Your task to perform on an android device: Search for "razer blade" on newegg.com, select the first entry, add it to the cart, then select checkout. Image 0: 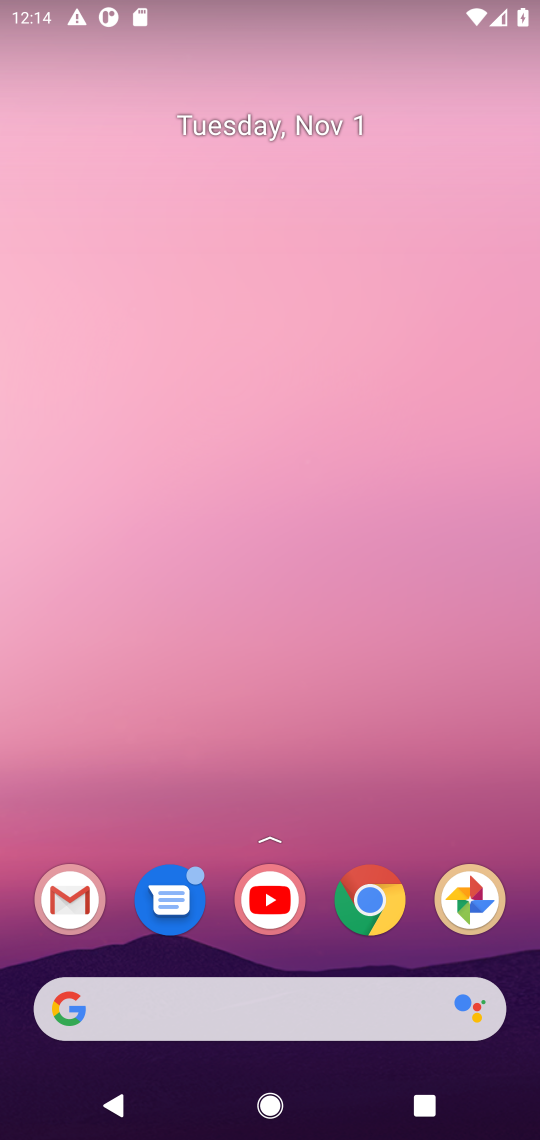
Step 0: click (373, 908)
Your task to perform on an android device: Search for "razer blade" on newegg.com, select the first entry, add it to the cart, then select checkout. Image 1: 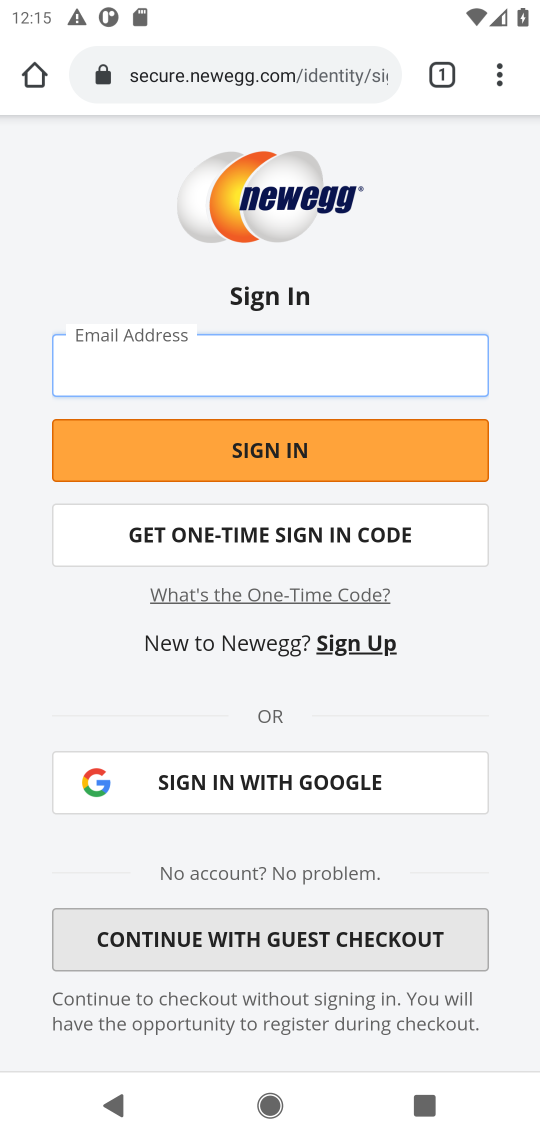
Step 1: click (276, 69)
Your task to perform on an android device: Search for "razer blade" on newegg.com, select the first entry, add it to the cart, then select checkout. Image 2: 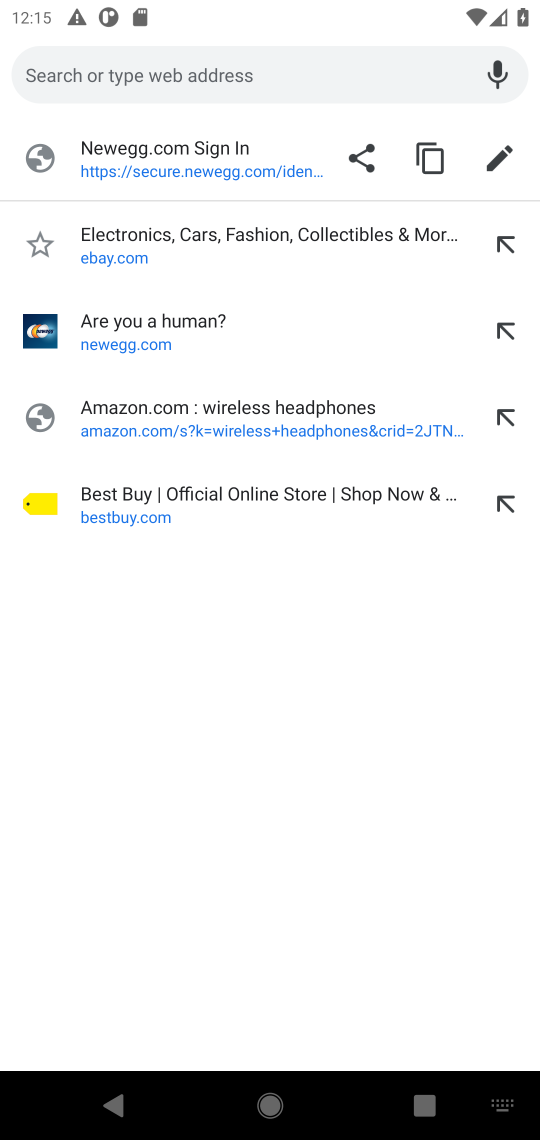
Step 2: click (165, 152)
Your task to perform on an android device: Search for "razer blade" on newegg.com, select the first entry, add it to the cart, then select checkout. Image 3: 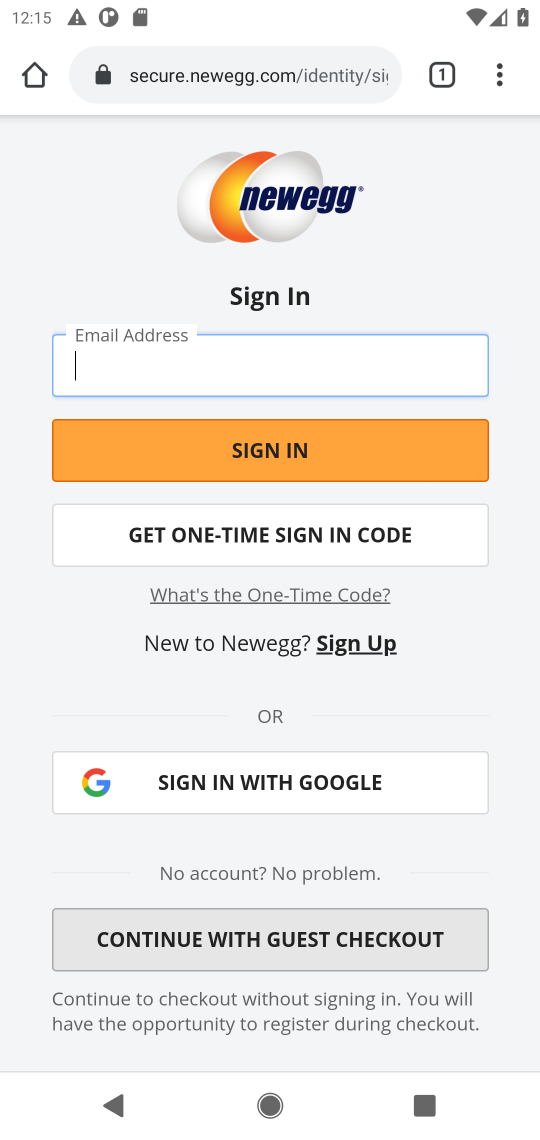
Step 3: click (156, 72)
Your task to perform on an android device: Search for "razer blade" on newegg.com, select the first entry, add it to the cart, then select checkout. Image 4: 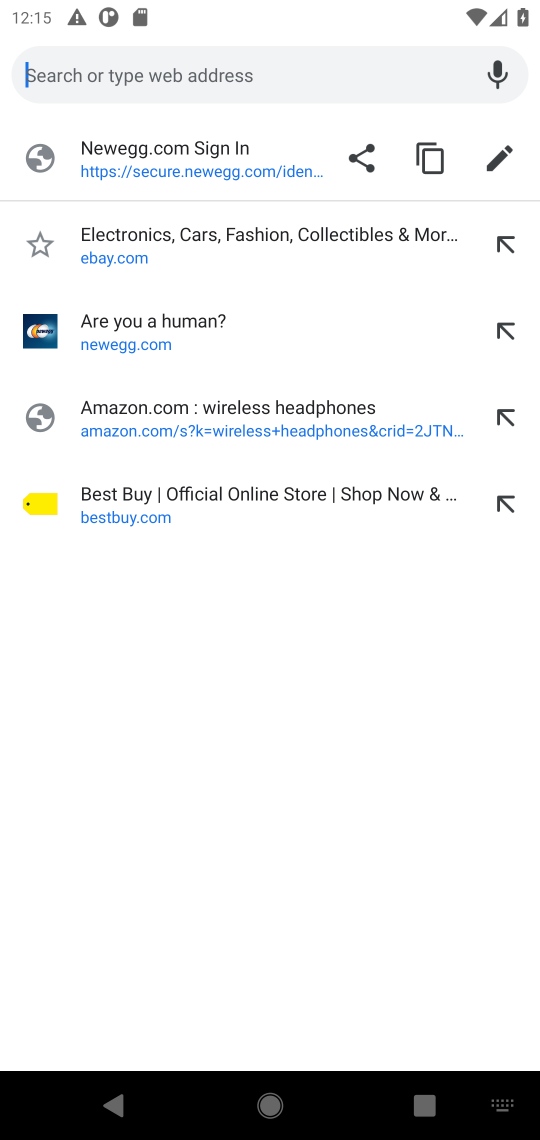
Step 4: type "newegg.com"
Your task to perform on an android device: Search for "razer blade" on newegg.com, select the first entry, add it to the cart, then select checkout. Image 5: 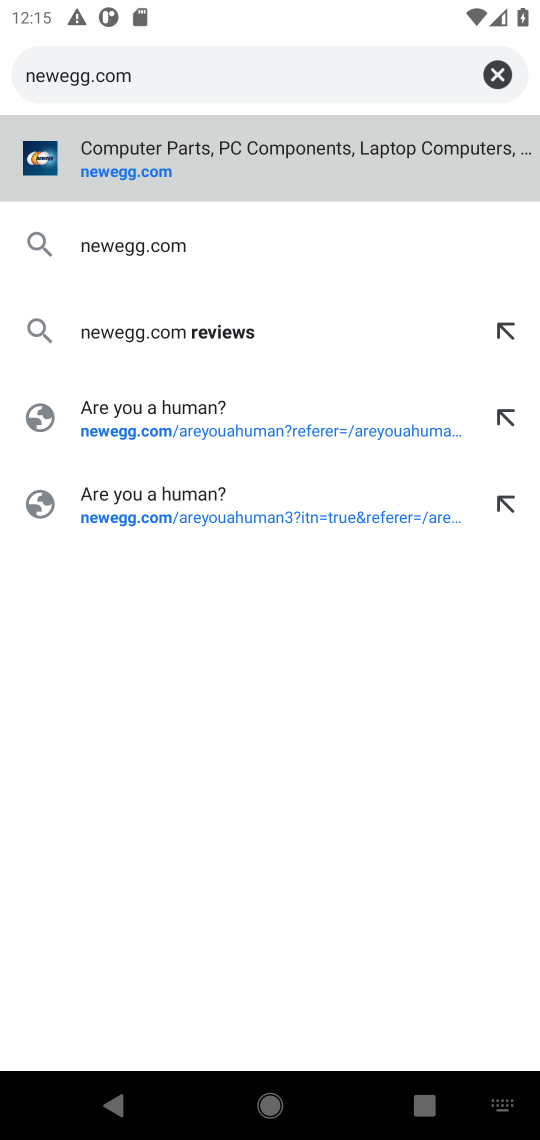
Step 5: press enter
Your task to perform on an android device: Search for "razer blade" on newegg.com, select the first entry, add it to the cart, then select checkout. Image 6: 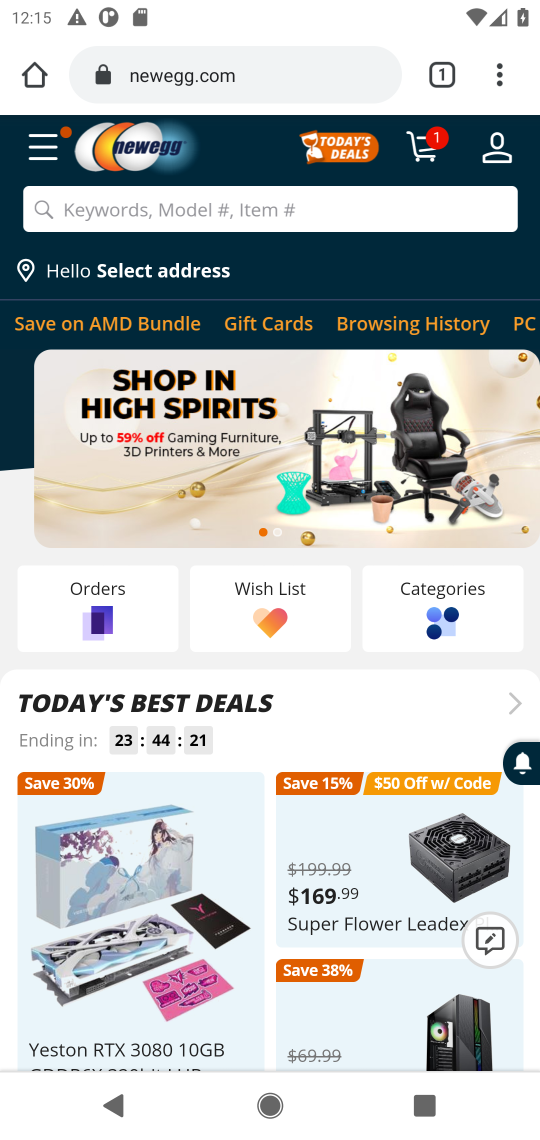
Step 6: click (290, 206)
Your task to perform on an android device: Search for "razer blade" on newegg.com, select the first entry, add it to the cart, then select checkout. Image 7: 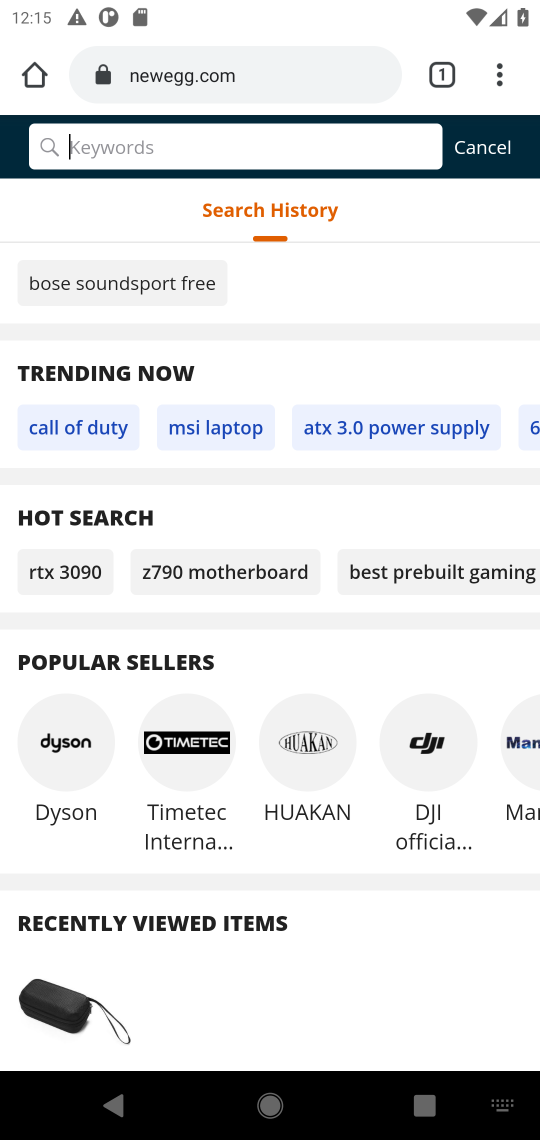
Step 7: type "razer blade"
Your task to perform on an android device: Search for "razer blade" on newegg.com, select the first entry, add it to the cart, then select checkout. Image 8: 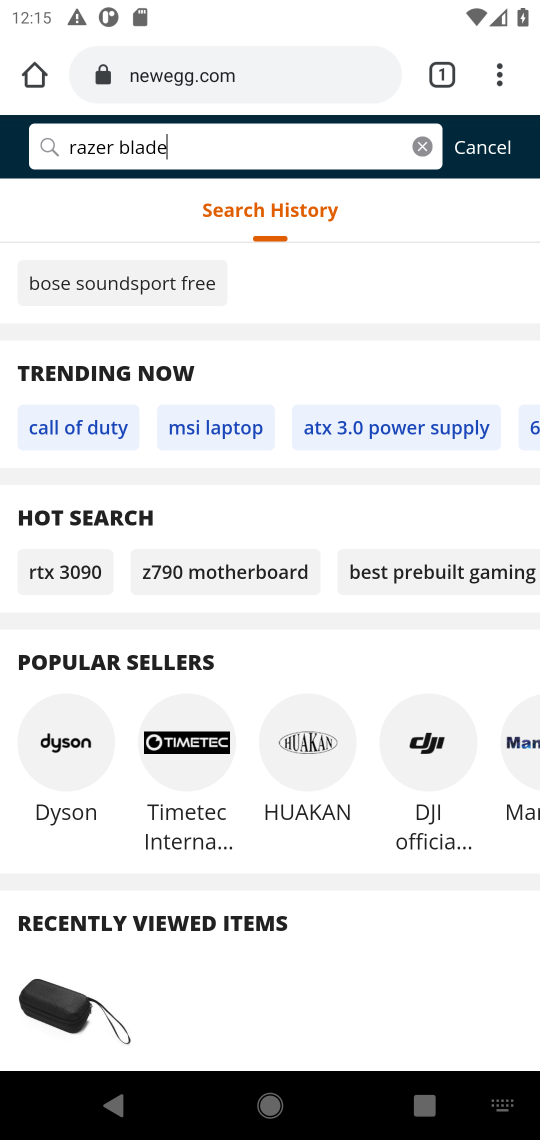
Step 8: press enter
Your task to perform on an android device: Search for "razer blade" on newegg.com, select the first entry, add it to the cart, then select checkout. Image 9: 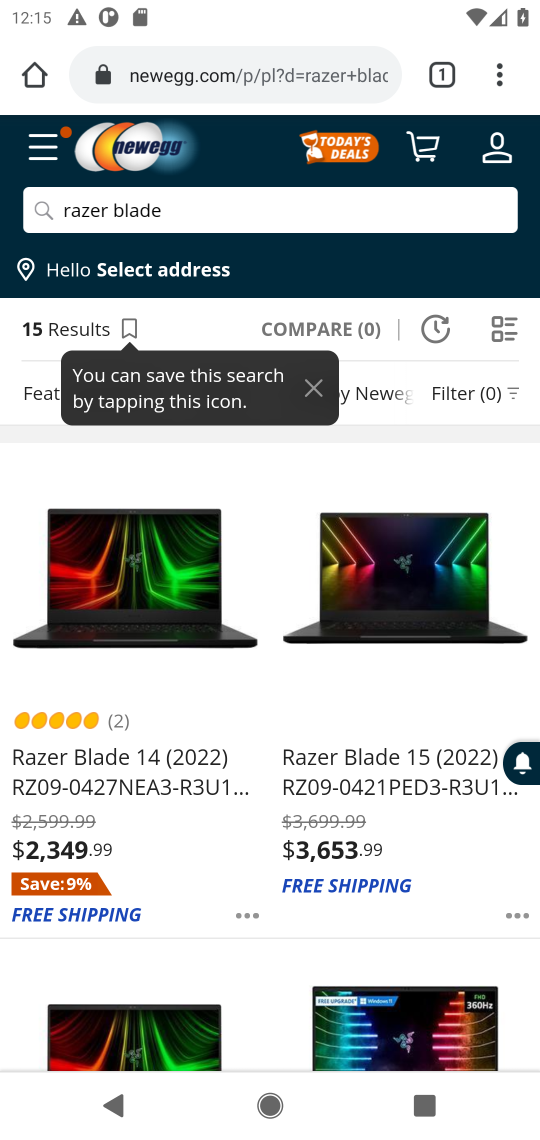
Step 9: click (146, 607)
Your task to perform on an android device: Search for "razer blade" on newegg.com, select the first entry, add it to the cart, then select checkout. Image 10: 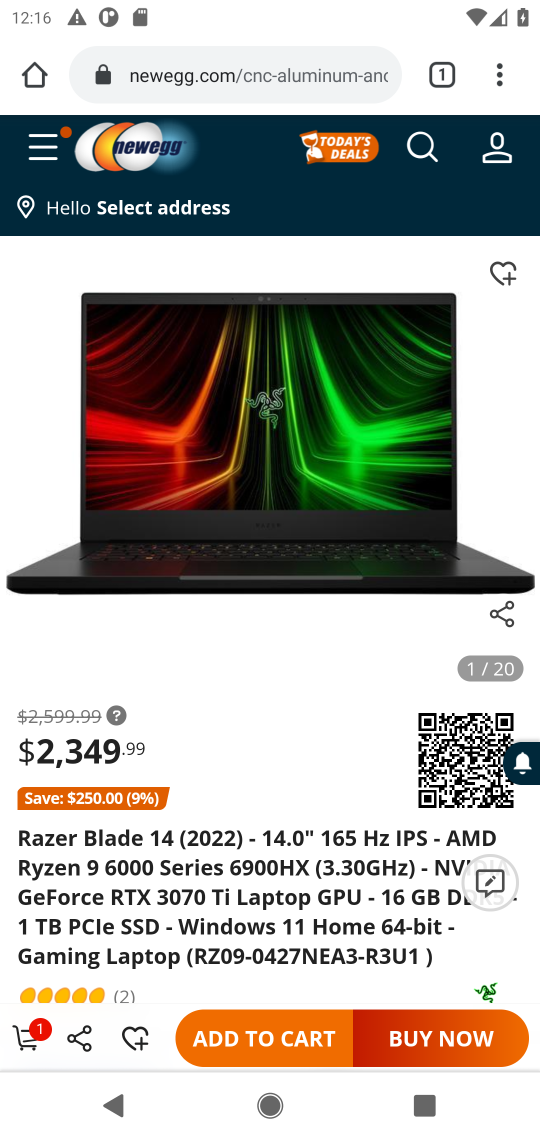
Step 10: click (267, 1029)
Your task to perform on an android device: Search for "razer blade" on newegg.com, select the first entry, add it to the cart, then select checkout. Image 11: 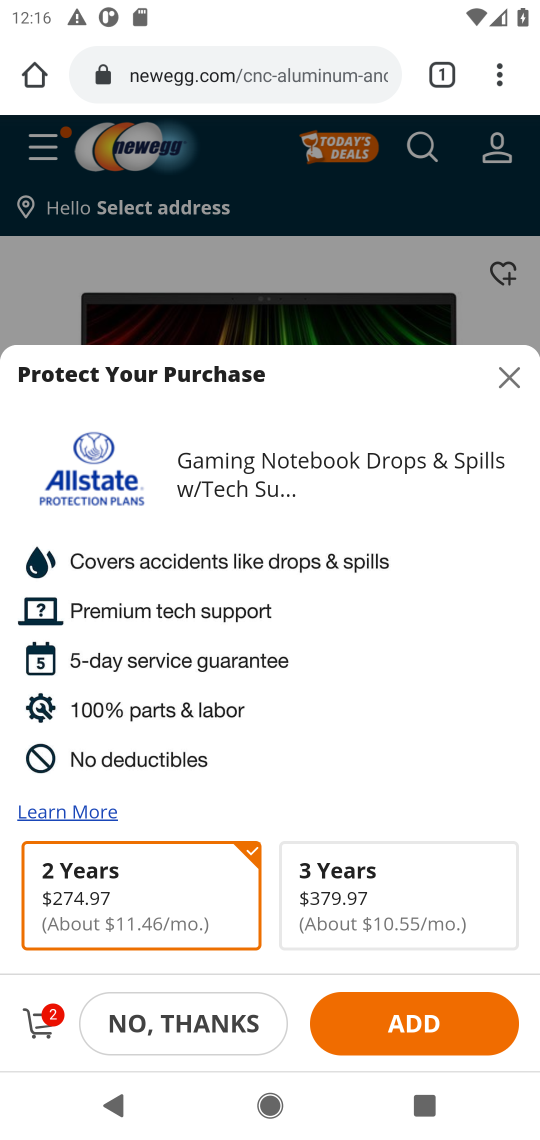
Step 11: click (511, 377)
Your task to perform on an android device: Search for "razer blade" on newegg.com, select the first entry, add it to the cart, then select checkout. Image 12: 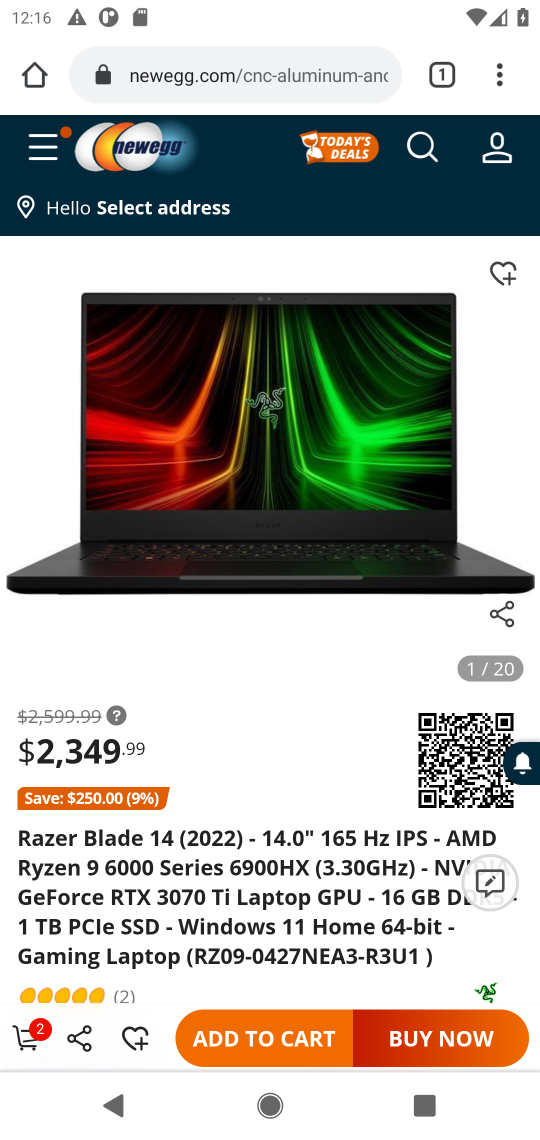
Step 12: drag from (346, 692) to (359, 610)
Your task to perform on an android device: Search for "razer blade" on newegg.com, select the first entry, add it to the cart, then select checkout. Image 13: 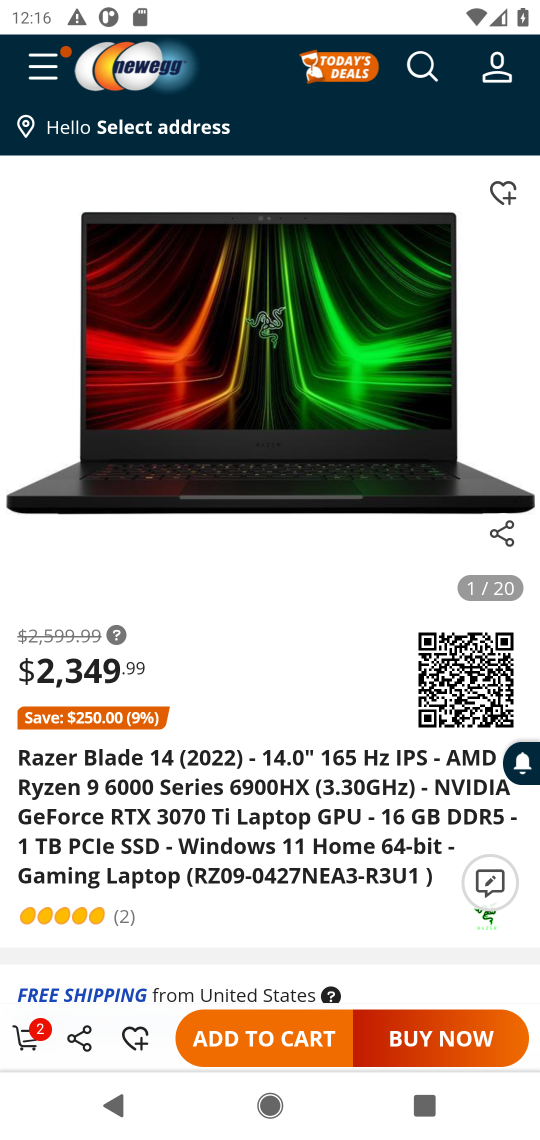
Step 13: press back button
Your task to perform on an android device: Search for "razer blade" on newegg.com, select the first entry, add it to the cart, then select checkout. Image 14: 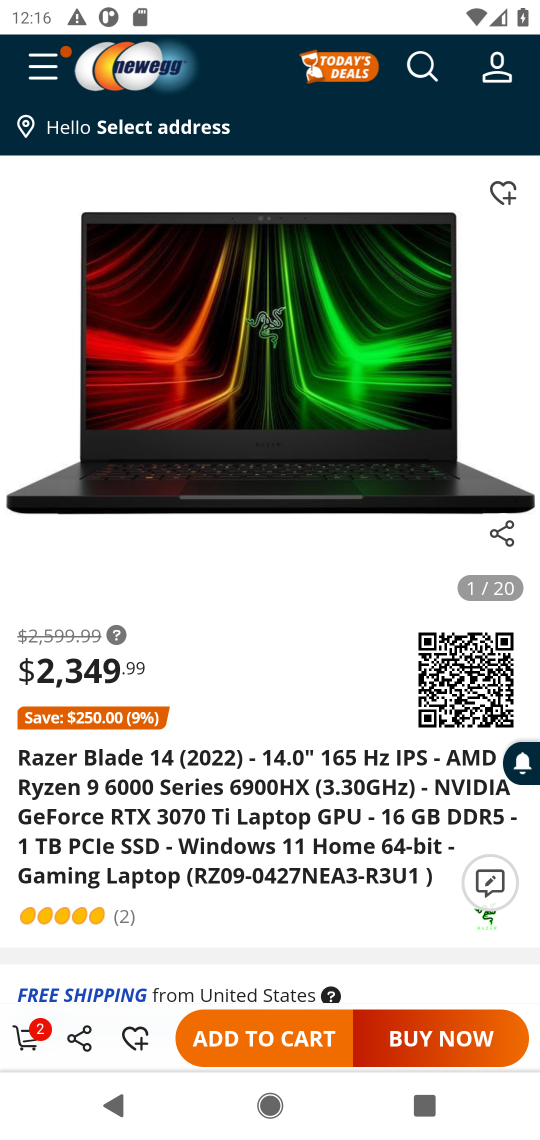
Step 14: click (41, 65)
Your task to perform on an android device: Search for "razer blade" on newegg.com, select the first entry, add it to the cart, then select checkout. Image 15: 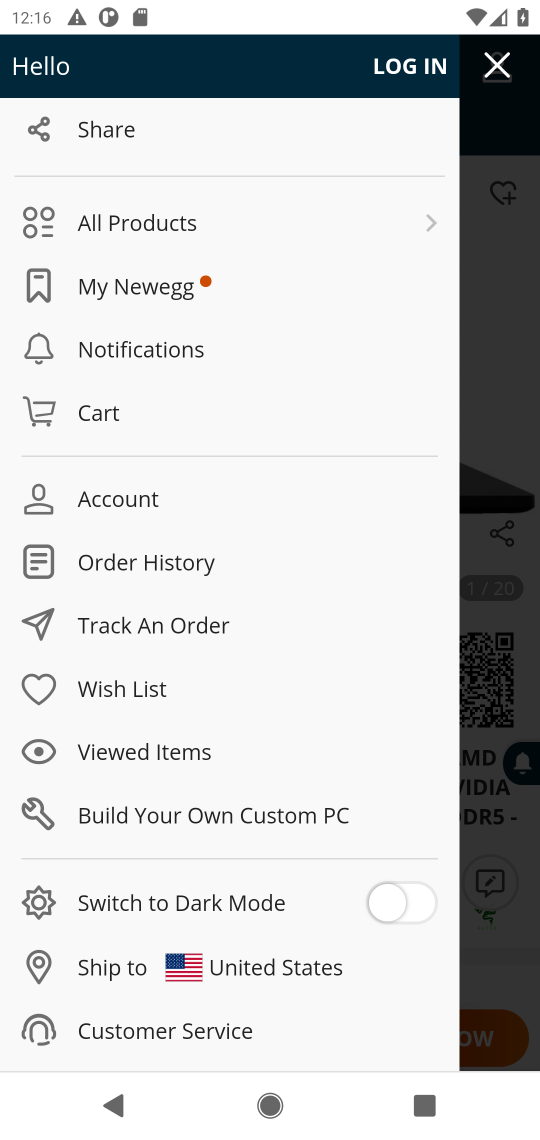
Step 15: click (496, 58)
Your task to perform on an android device: Search for "razer blade" on newegg.com, select the first entry, add it to the cart, then select checkout. Image 16: 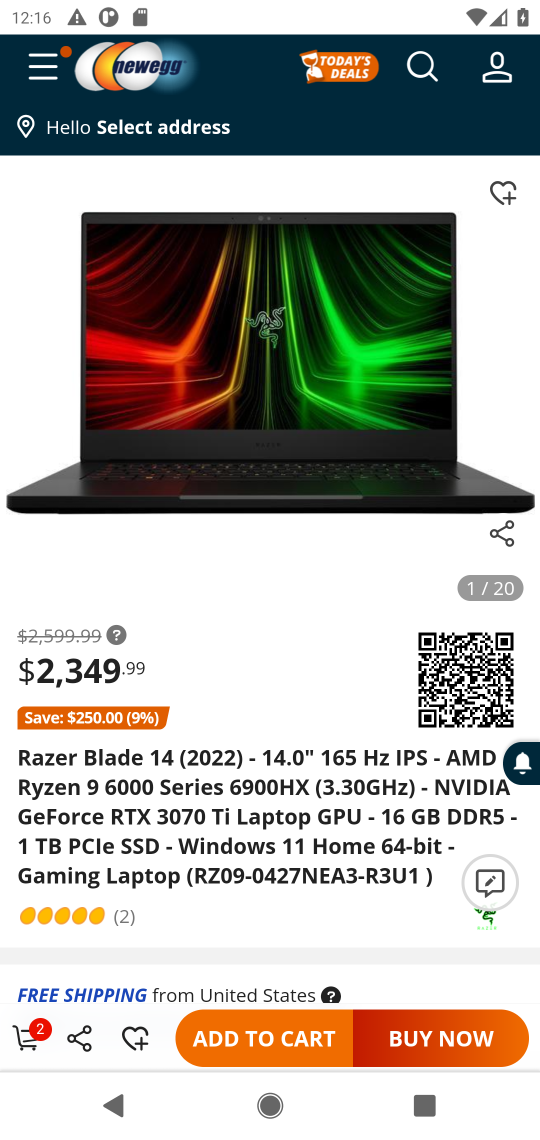
Step 16: click (364, 68)
Your task to perform on an android device: Search for "razer blade" on newegg.com, select the first entry, add it to the cart, then select checkout. Image 17: 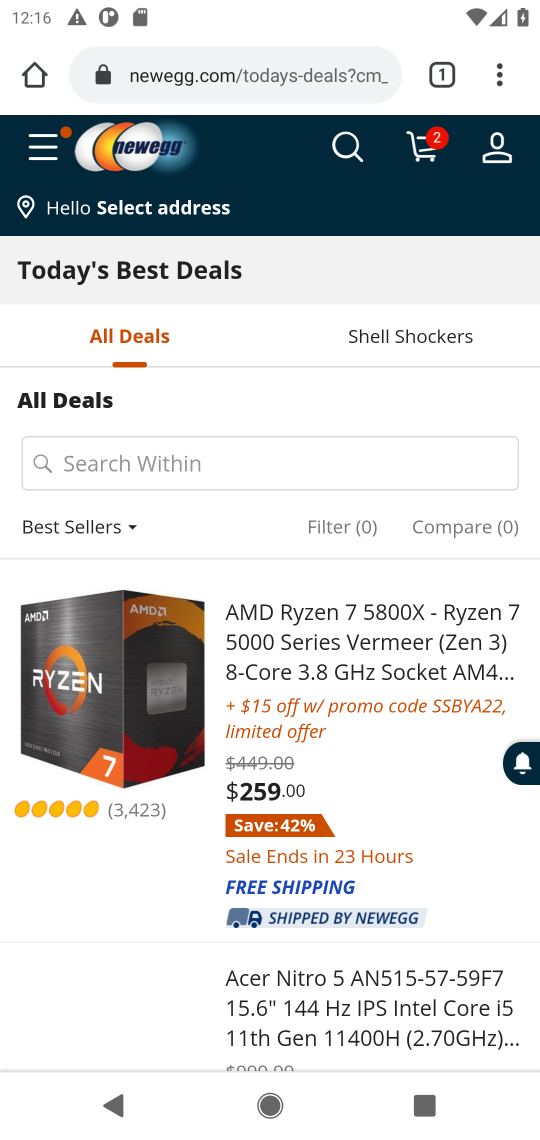
Step 17: click (430, 148)
Your task to perform on an android device: Search for "razer blade" on newegg.com, select the first entry, add it to the cart, then select checkout. Image 18: 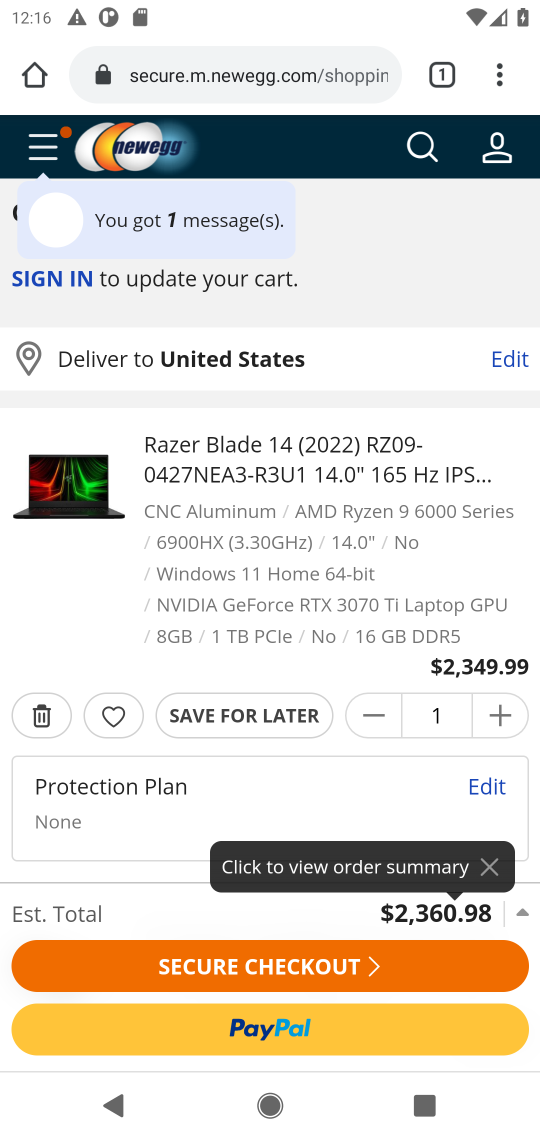
Step 18: click (275, 960)
Your task to perform on an android device: Search for "razer blade" on newegg.com, select the first entry, add it to the cart, then select checkout. Image 19: 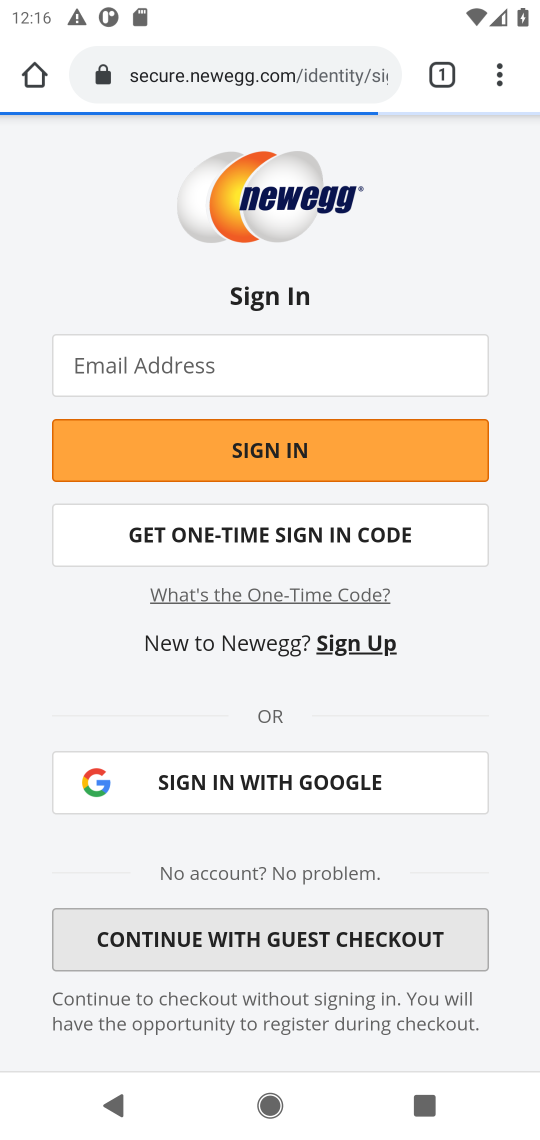
Step 19: task complete